Your task to perform on an android device: Open Google Chrome Image 0: 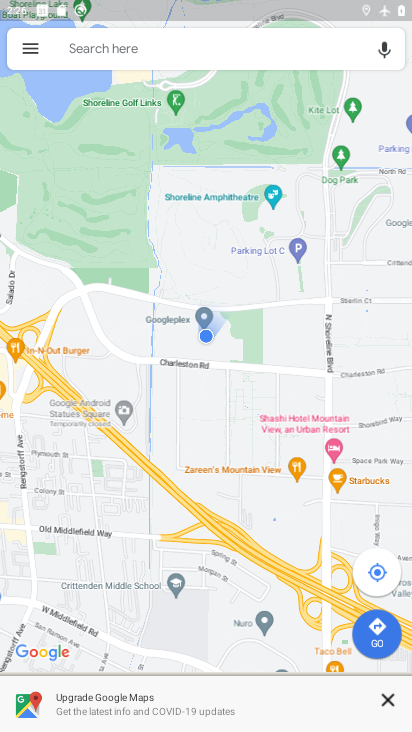
Step 0: click (313, 227)
Your task to perform on an android device: Open Google Chrome Image 1: 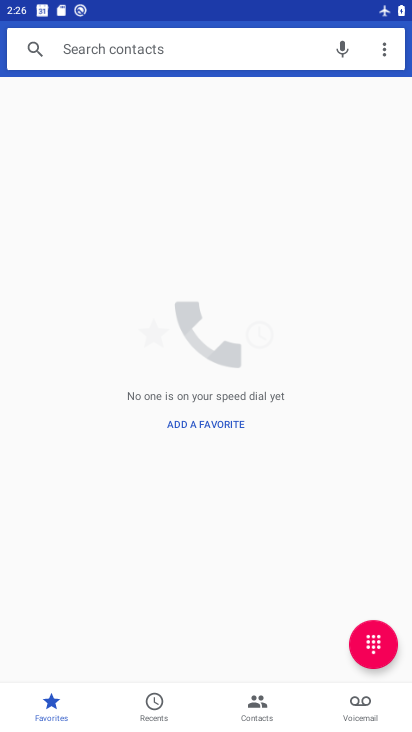
Step 1: press home button
Your task to perform on an android device: Open Google Chrome Image 2: 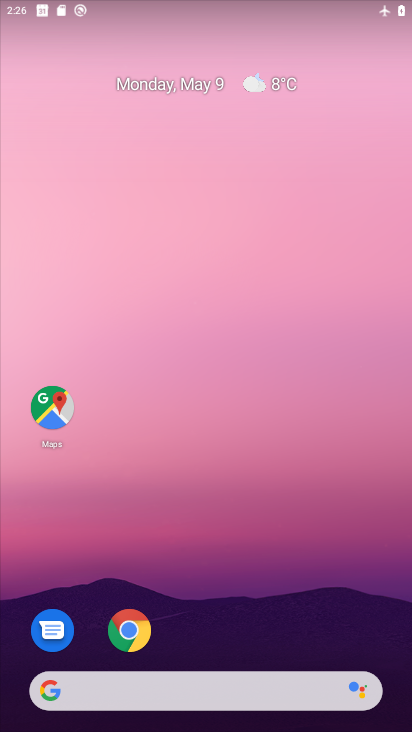
Step 2: click (134, 627)
Your task to perform on an android device: Open Google Chrome Image 3: 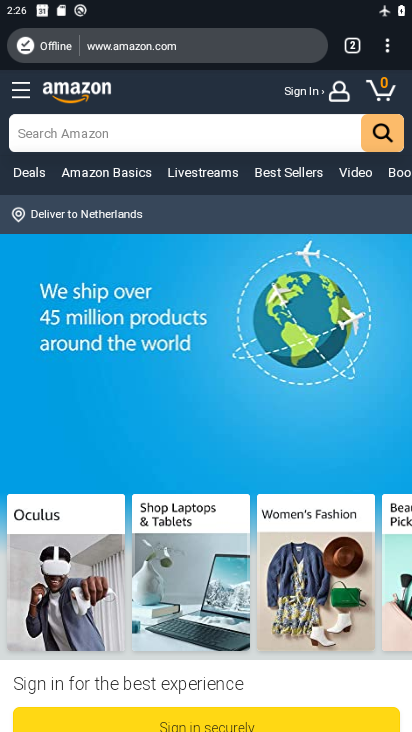
Step 3: task complete